Your task to perform on an android device: turn on improve location accuracy Image 0: 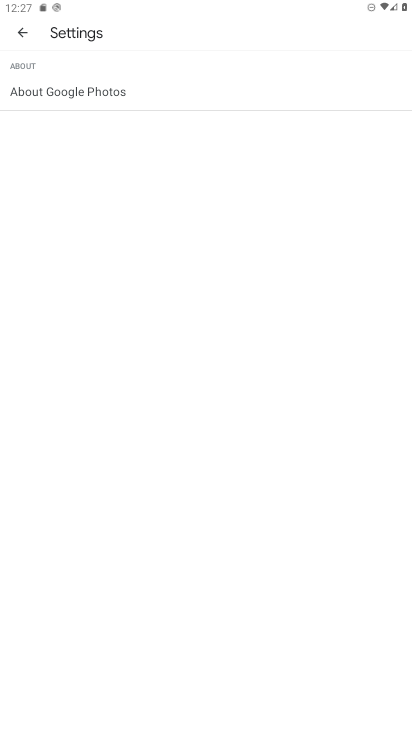
Step 0: press home button
Your task to perform on an android device: turn on improve location accuracy Image 1: 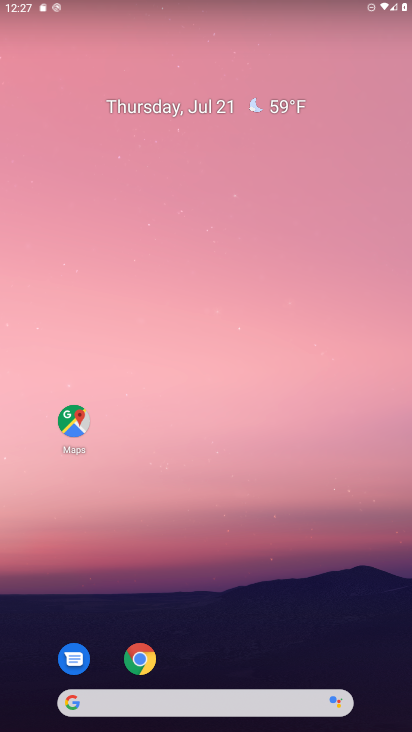
Step 1: drag from (33, 603) to (225, 206)
Your task to perform on an android device: turn on improve location accuracy Image 2: 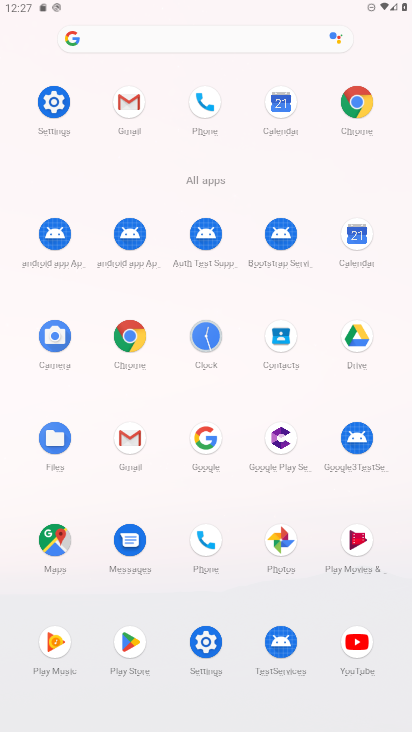
Step 2: click (51, 108)
Your task to perform on an android device: turn on improve location accuracy Image 3: 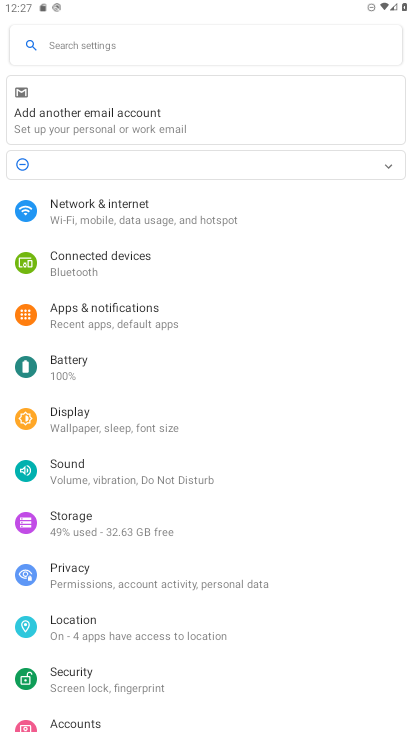
Step 3: click (99, 635)
Your task to perform on an android device: turn on improve location accuracy Image 4: 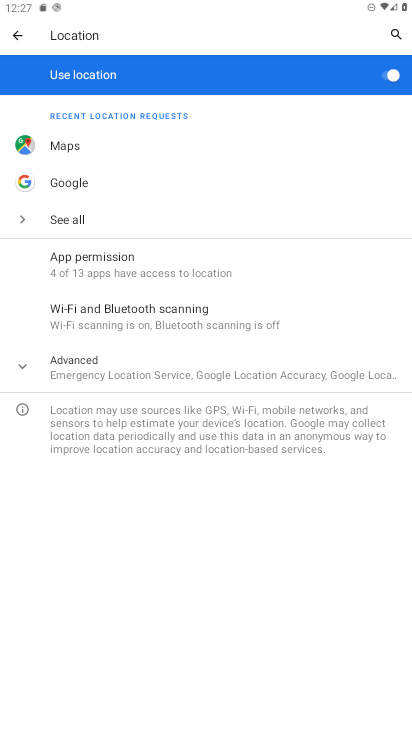
Step 4: click (184, 367)
Your task to perform on an android device: turn on improve location accuracy Image 5: 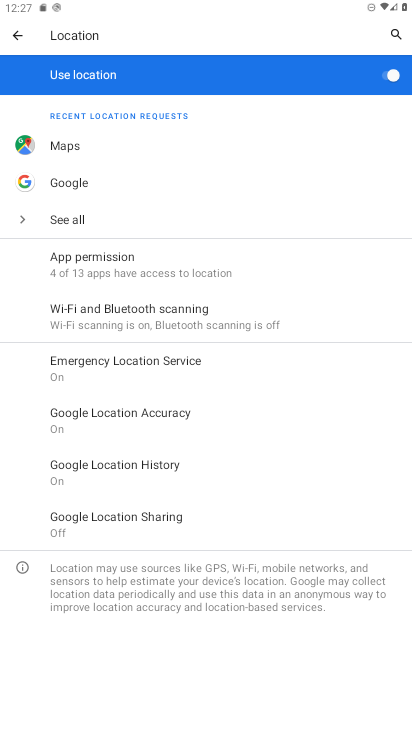
Step 5: click (140, 412)
Your task to perform on an android device: turn on improve location accuracy Image 6: 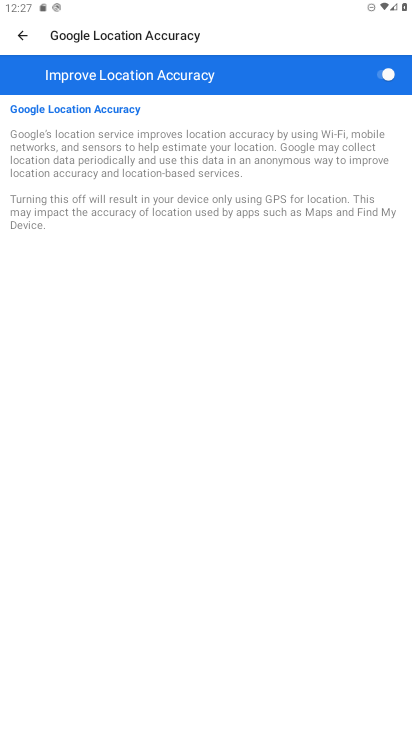
Step 6: task complete